Your task to perform on an android device: Search for seafood restaurants on Google Maps Image 0: 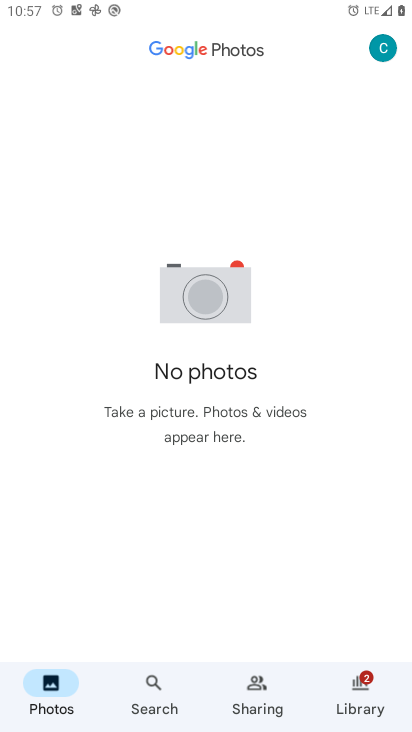
Step 0: press home button
Your task to perform on an android device: Search for seafood restaurants on Google Maps Image 1: 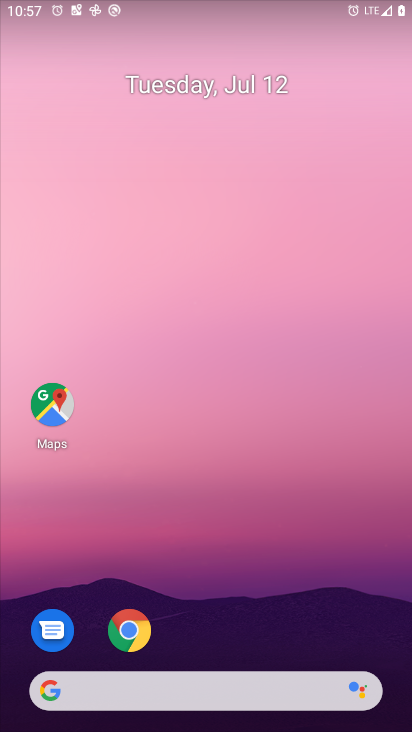
Step 1: drag from (252, 603) to (235, 56)
Your task to perform on an android device: Search for seafood restaurants on Google Maps Image 2: 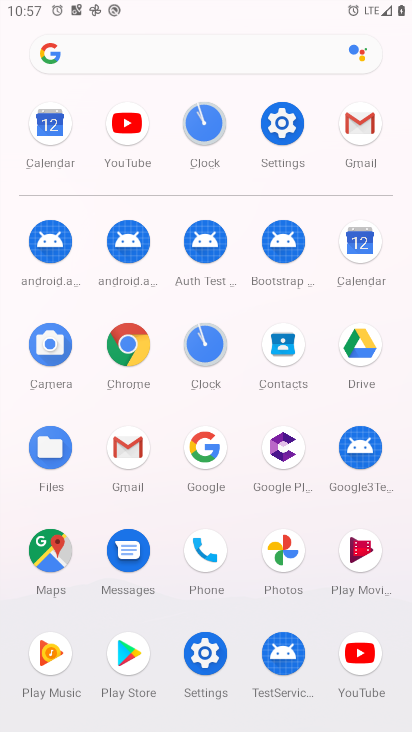
Step 2: click (58, 559)
Your task to perform on an android device: Search for seafood restaurants on Google Maps Image 3: 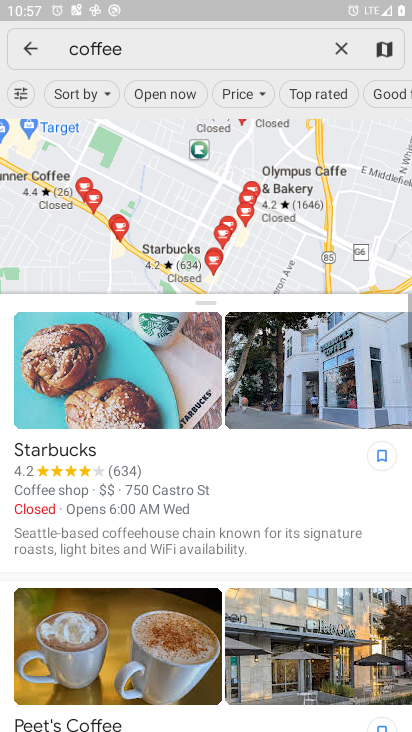
Step 3: click (340, 49)
Your task to perform on an android device: Search for seafood restaurants on Google Maps Image 4: 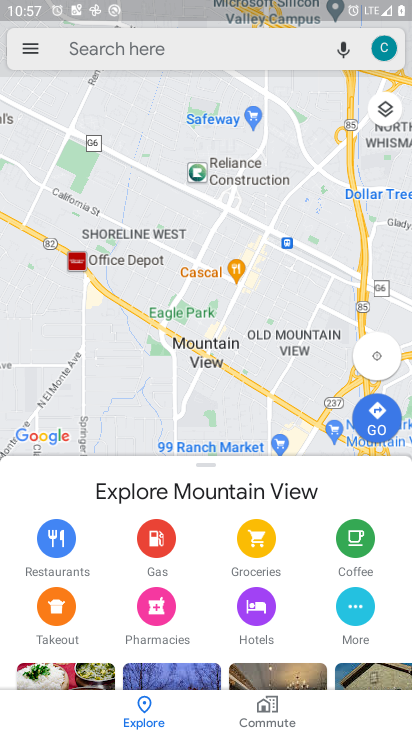
Step 4: type " seafood restaurants"
Your task to perform on an android device: Search for seafood restaurants on Google Maps Image 5: 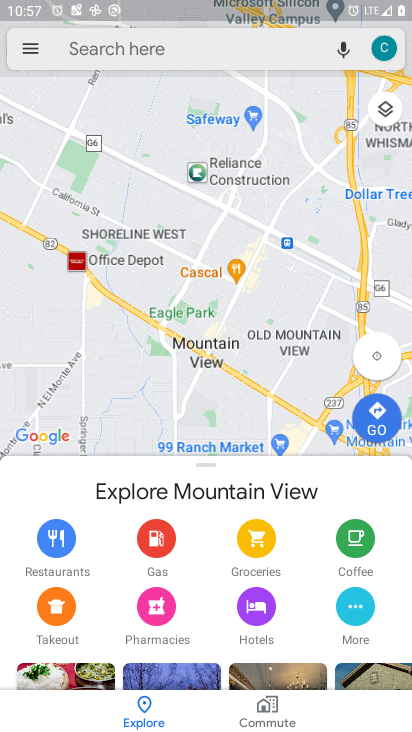
Step 5: click (87, 50)
Your task to perform on an android device: Search for seafood restaurants on Google Maps Image 6: 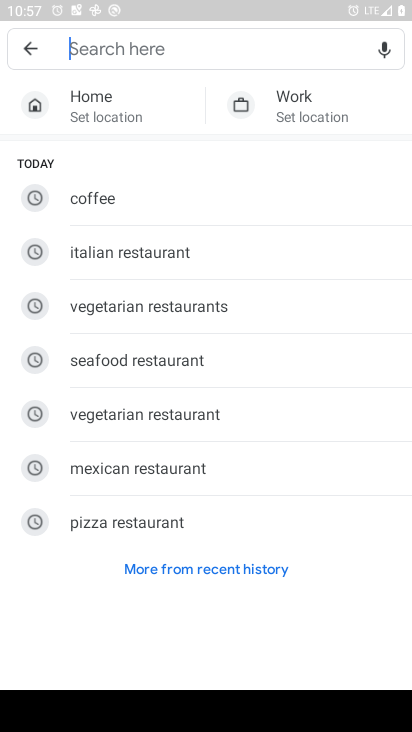
Step 6: click (96, 48)
Your task to perform on an android device: Search for seafood restaurants on Google Maps Image 7: 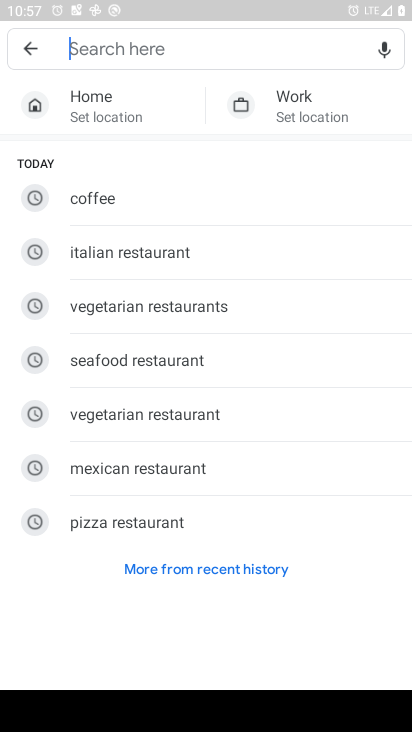
Step 7: type " seafood restaurants"
Your task to perform on an android device: Search for seafood restaurants on Google Maps Image 8: 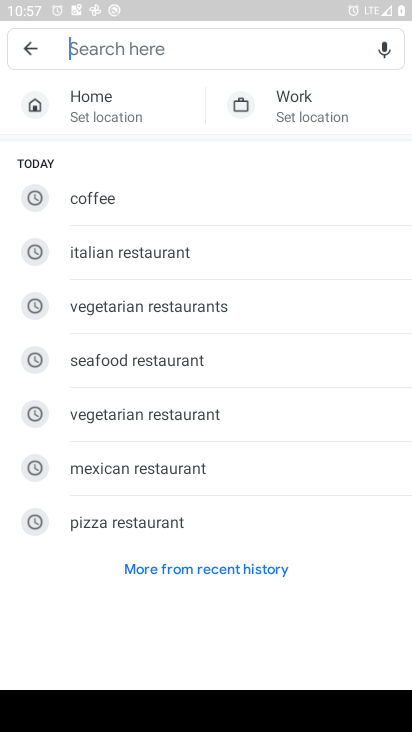
Step 8: click (81, 40)
Your task to perform on an android device: Search for seafood restaurants on Google Maps Image 9: 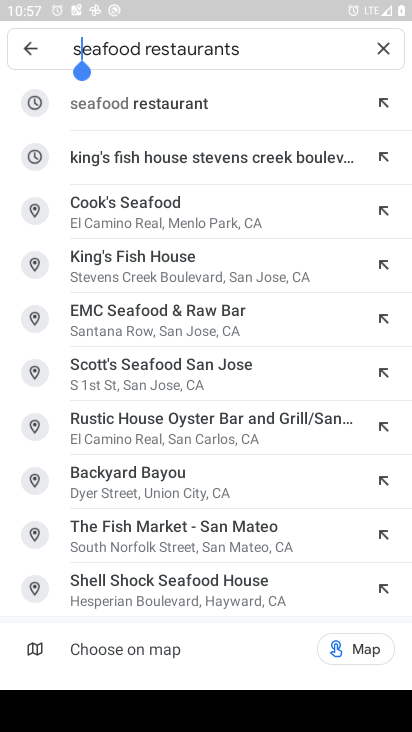
Step 9: press enter
Your task to perform on an android device: Search for seafood restaurants on Google Maps Image 10: 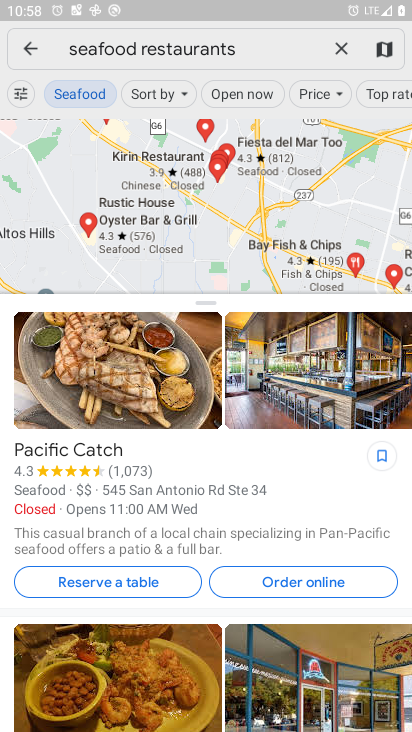
Step 10: task complete